Your task to perform on an android device: Open settings on Google Maps Image 0: 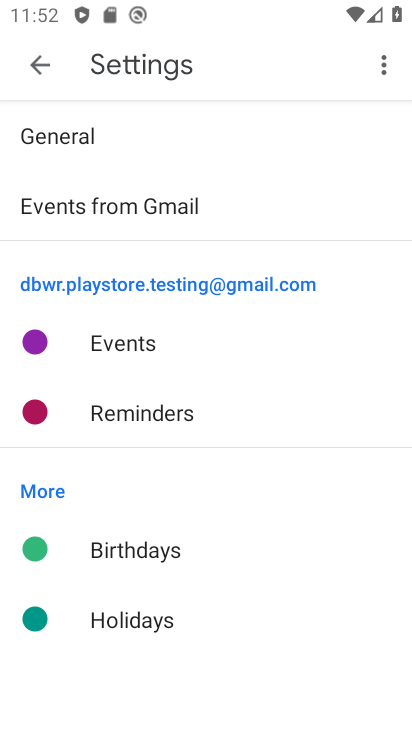
Step 0: press home button
Your task to perform on an android device: Open settings on Google Maps Image 1: 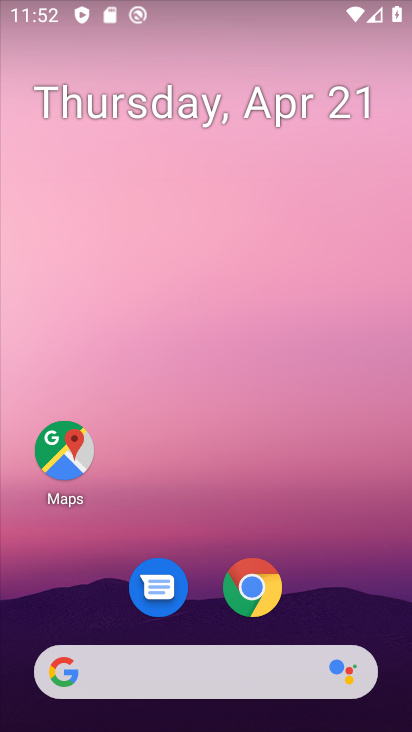
Step 1: click (57, 448)
Your task to perform on an android device: Open settings on Google Maps Image 2: 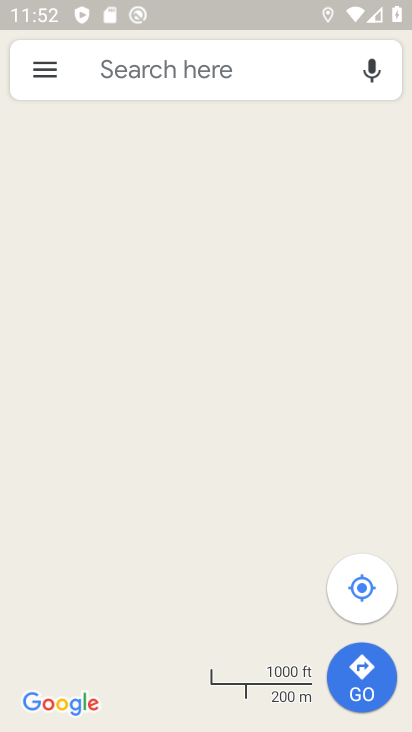
Step 2: click (44, 71)
Your task to perform on an android device: Open settings on Google Maps Image 3: 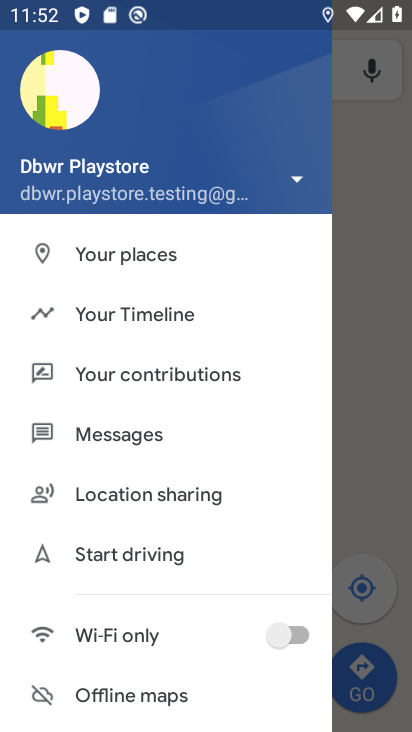
Step 3: drag from (189, 665) to (179, 145)
Your task to perform on an android device: Open settings on Google Maps Image 4: 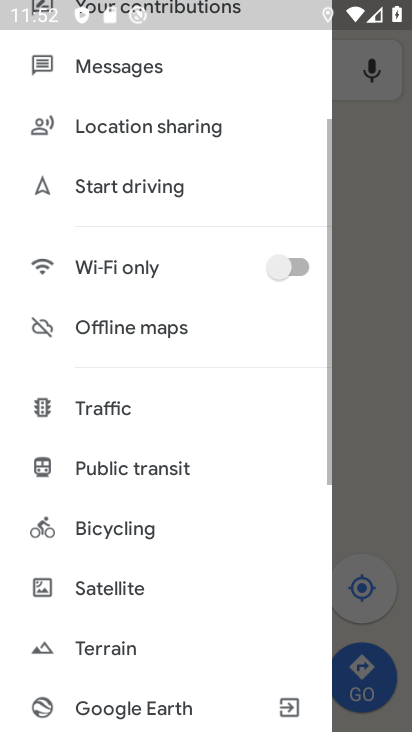
Step 4: drag from (168, 563) to (167, 161)
Your task to perform on an android device: Open settings on Google Maps Image 5: 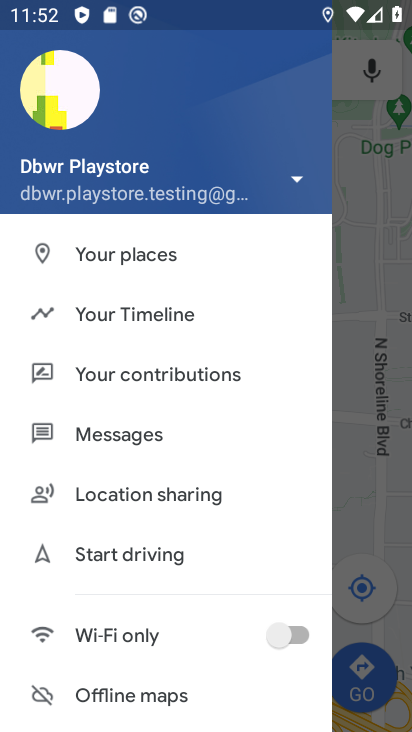
Step 5: click (64, 532)
Your task to perform on an android device: Open settings on Google Maps Image 6: 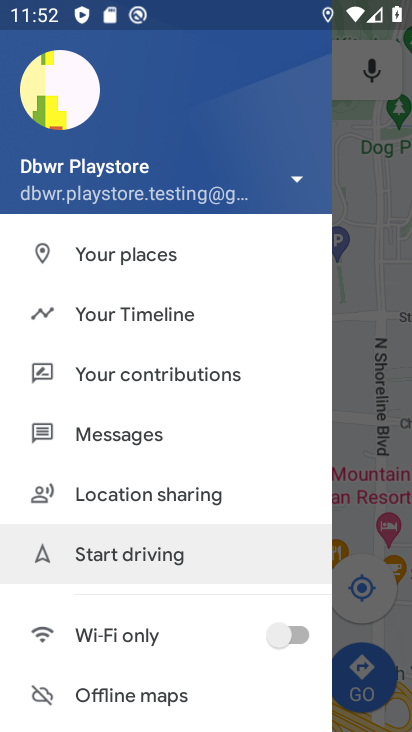
Step 6: drag from (89, 514) to (131, 63)
Your task to perform on an android device: Open settings on Google Maps Image 7: 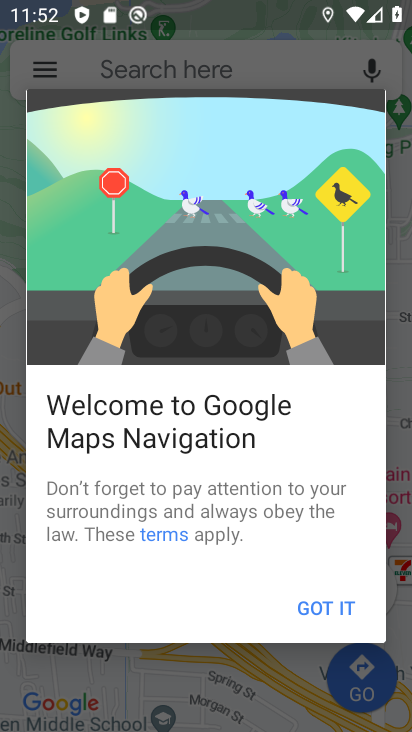
Step 7: click (311, 607)
Your task to perform on an android device: Open settings on Google Maps Image 8: 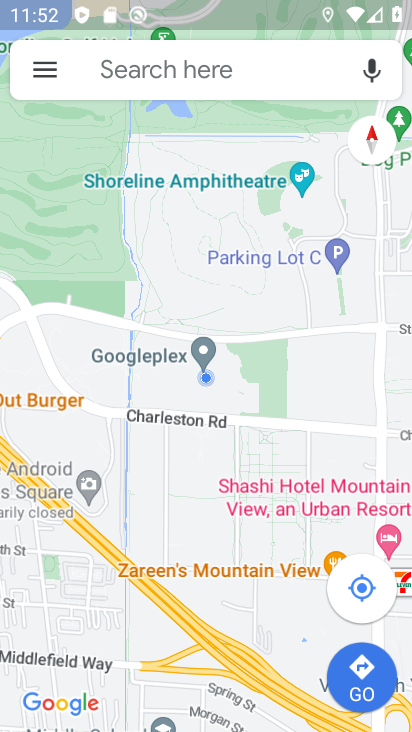
Step 8: click (48, 75)
Your task to perform on an android device: Open settings on Google Maps Image 9: 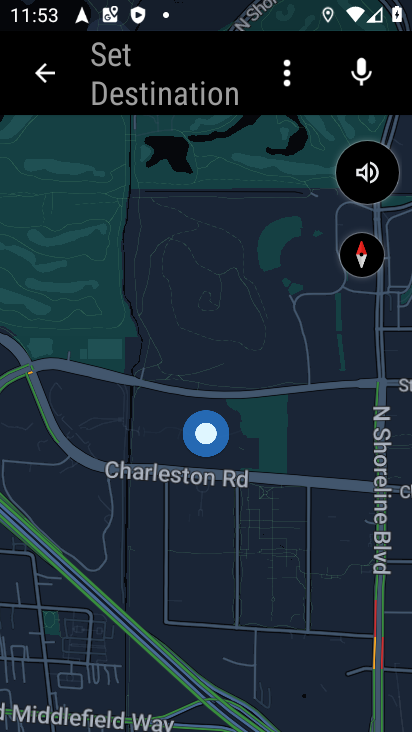
Step 9: click (290, 84)
Your task to perform on an android device: Open settings on Google Maps Image 10: 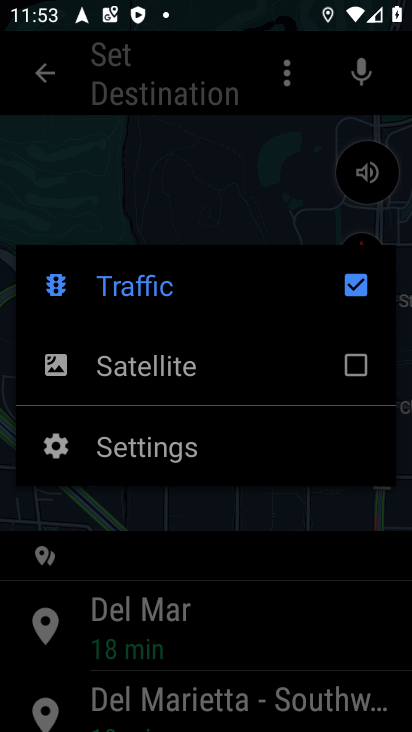
Step 10: click (158, 444)
Your task to perform on an android device: Open settings on Google Maps Image 11: 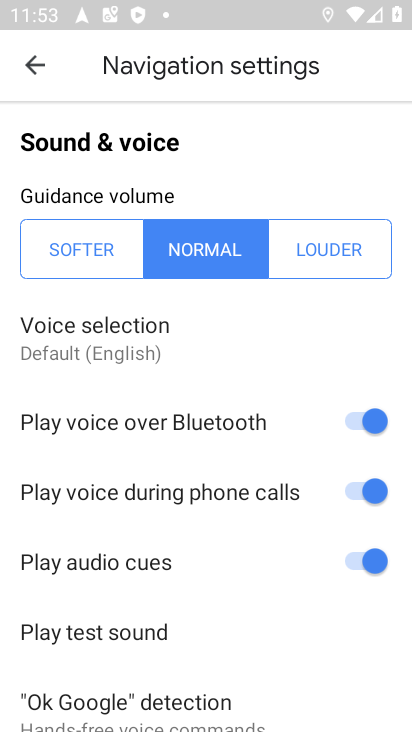
Step 11: task complete